Your task to perform on an android device: Turn on the flashlight Image 0: 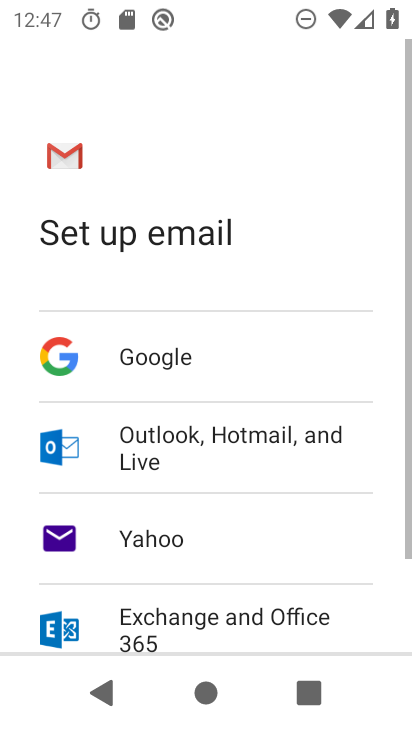
Step 0: press home button
Your task to perform on an android device: Turn on the flashlight Image 1: 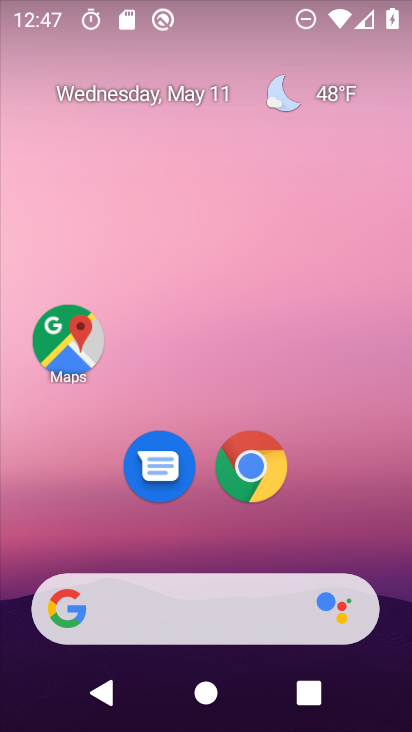
Step 1: drag from (203, 541) to (259, 48)
Your task to perform on an android device: Turn on the flashlight Image 2: 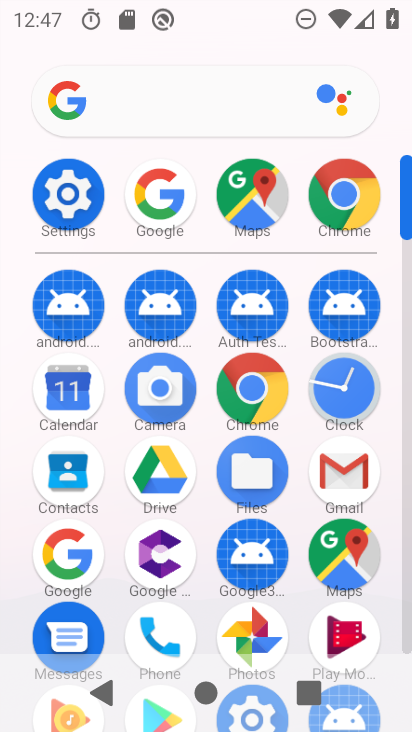
Step 2: click (66, 190)
Your task to perform on an android device: Turn on the flashlight Image 3: 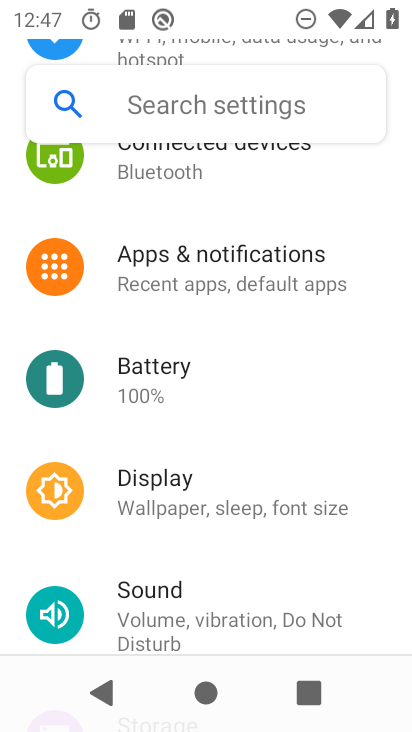
Step 3: click (189, 87)
Your task to perform on an android device: Turn on the flashlight Image 4: 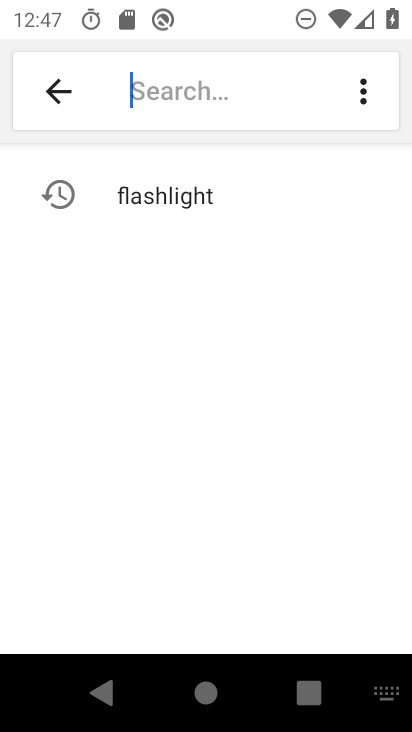
Step 4: click (230, 200)
Your task to perform on an android device: Turn on the flashlight Image 5: 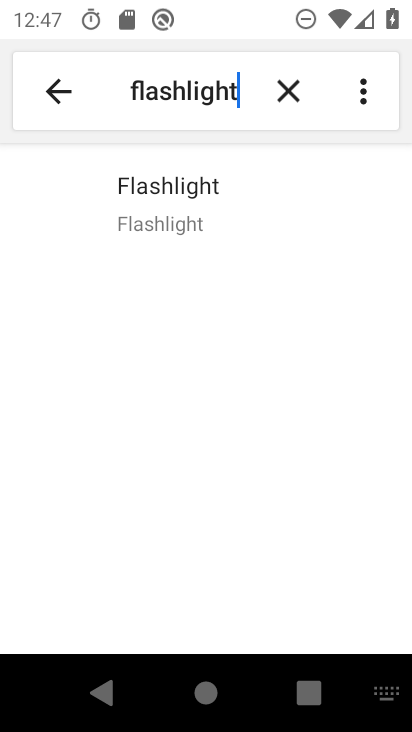
Step 5: click (228, 199)
Your task to perform on an android device: Turn on the flashlight Image 6: 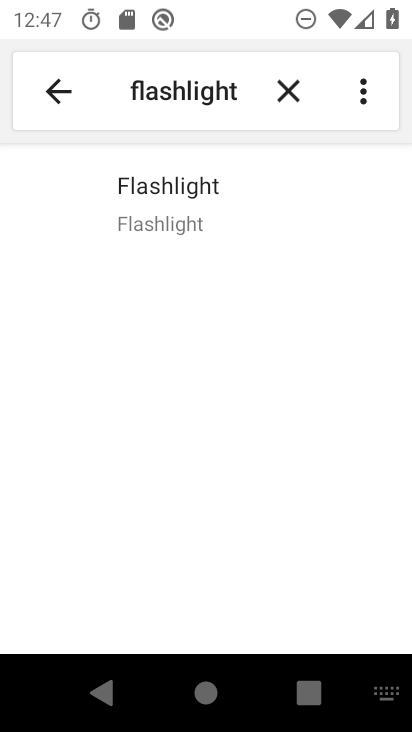
Step 6: task complete